Your task to perform on an android device: Set the phone to "Do not disturb". Image 0: 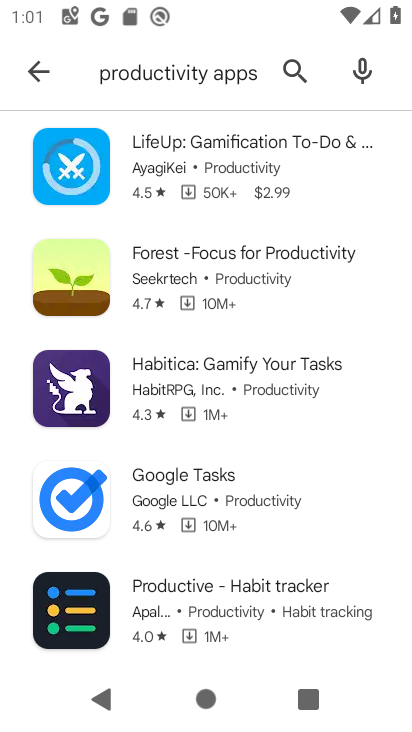
Step 0: press home button
Your task to perform on an android device: Set the phone to "Do not disturb". Image 1: 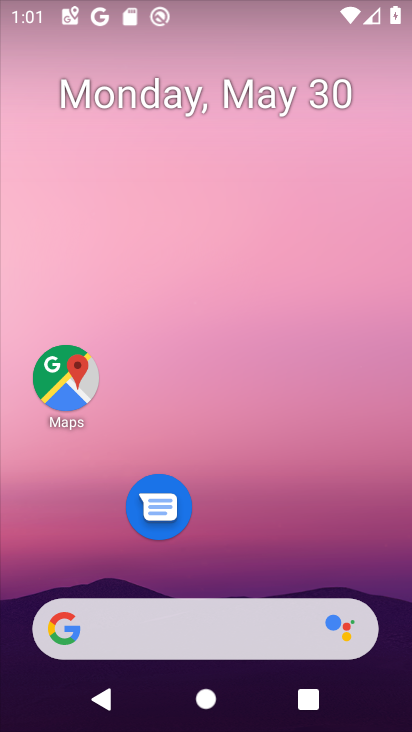
Step 1: drag from (246, 568) to (249, 129)
Your task to perform on an android device: Set the phone to "Do not disturb". Image 2: 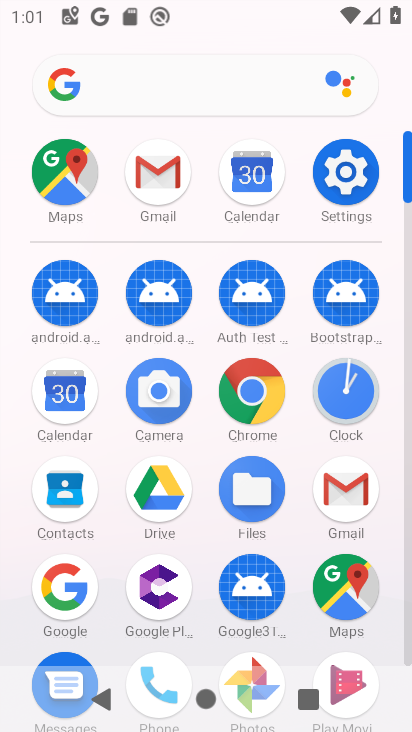
Step 2: drag from (185, 3) to (188, 562)
Your task to perform on an android device: Set the phone to "Do not disturb". Image 3: 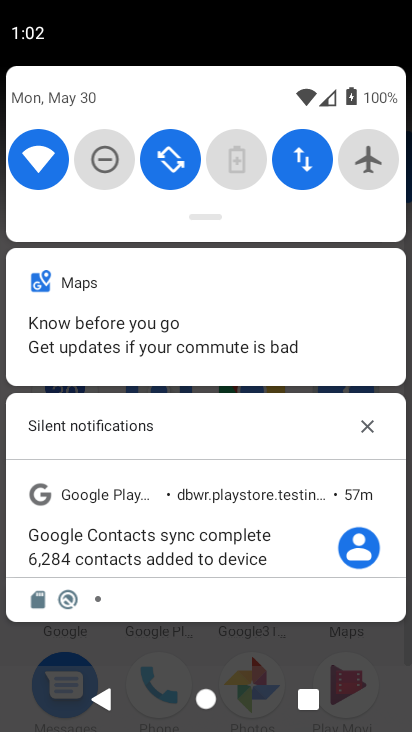
Step 3: click (103, 157)
Your task to perform on an android device: Set the phone to "Do not disturb". Image 4: 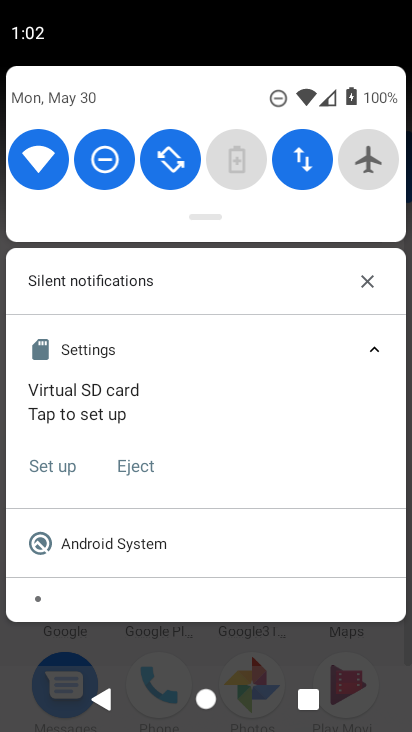
Step 4: task complete